Your task to perform on an android device: check data usage Image 0: 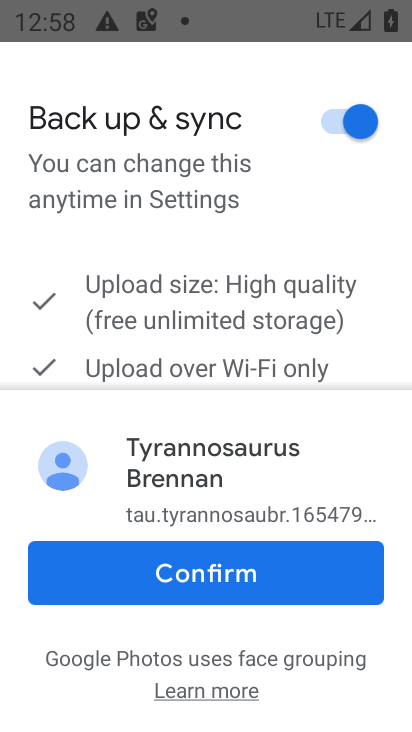
Step 0: press home button
Your task to perform on an android device: check data usage Image 1: 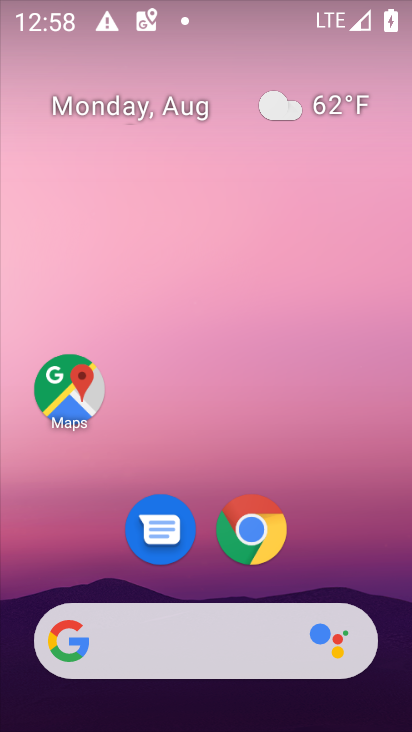
Step 1: drag from (182, 344) to (198, 140)
Your task to perform on an android device: check data usage Image 2: 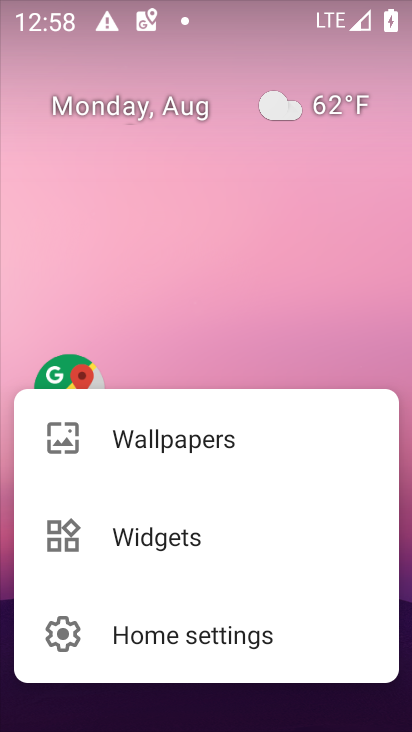
Step 2: click (236, 281)
Your task to perform on an android device: check data usage Image 3: 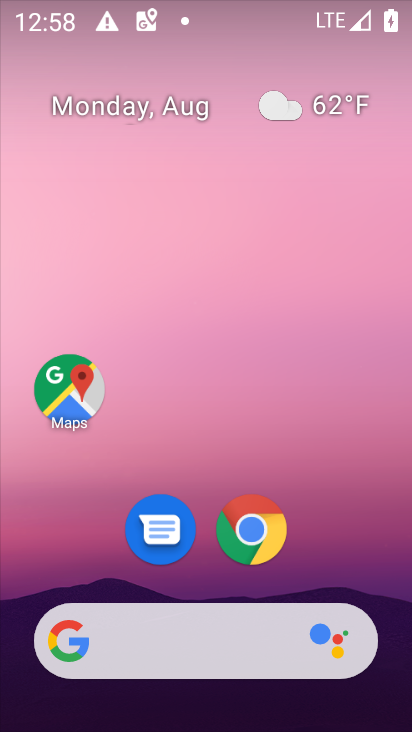
Step 3: drag from (211, 597) to (188, 154)
Your task to perform on an android device: check data usage Image 4: 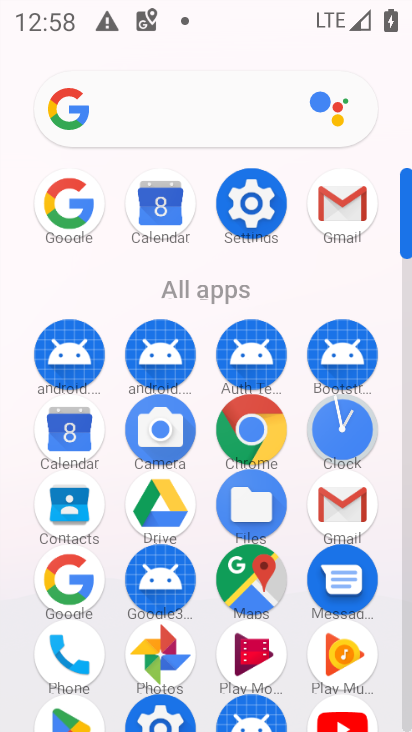
Step 4: click (263, 208)
Your task to perform on an android device: check data usage Image 5: 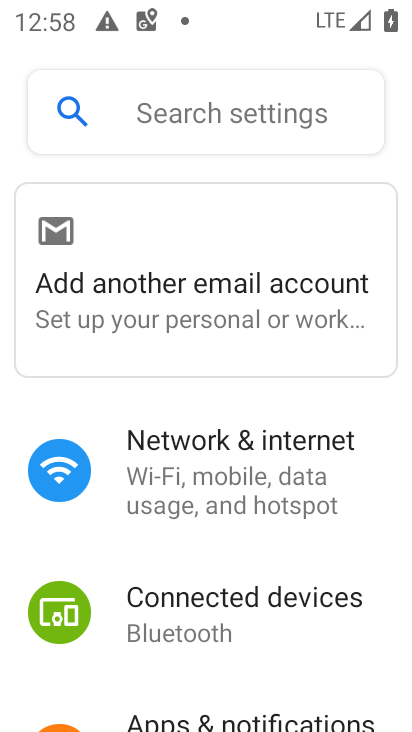
Step 5: click (206, 475)
Your task to perform on an android device: check data usage Image 6: 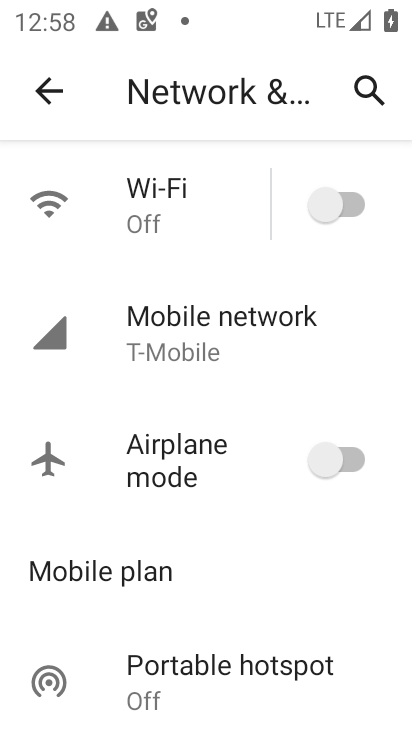
Step 6: click (162, 336)
Your task to perform on an android device: check data usage Image 7: 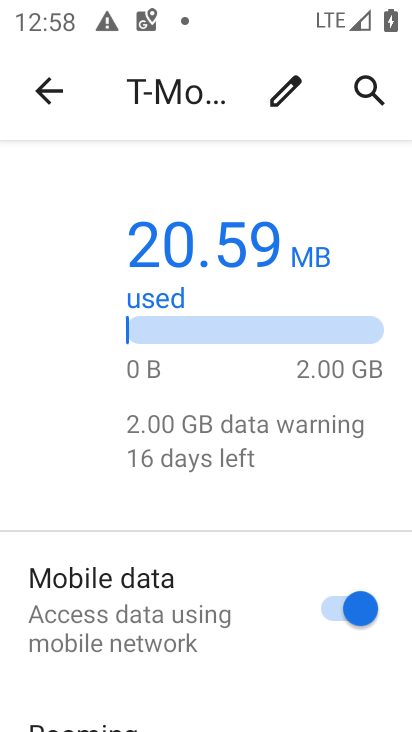
Step 7: task complete